Your task to perform on an android device: turn on bluetooth scan Image 0: 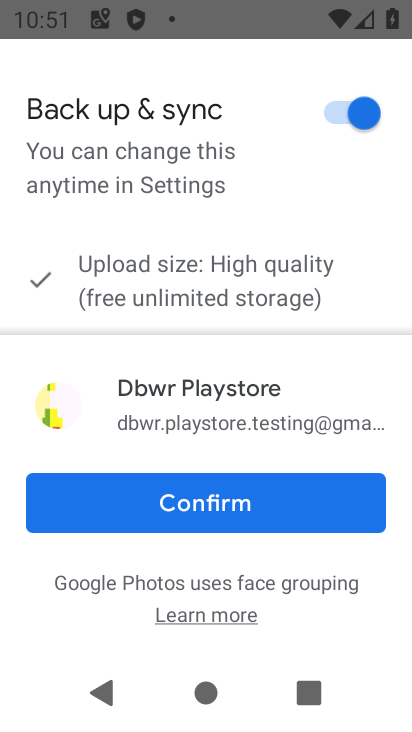
Step 0: press home button
Your task to perform on an android device: turn on bluetooth scan Image 1: 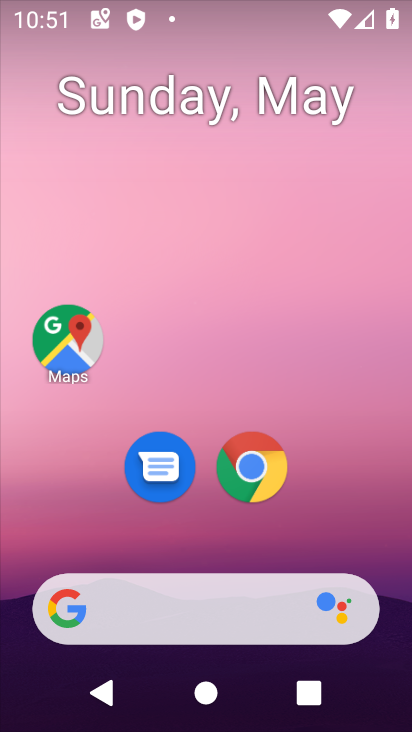
Step 1: drag from (381, 564) to (395, 0)
Your task to perform on an android device: turn on bluetooth scan Image 2: 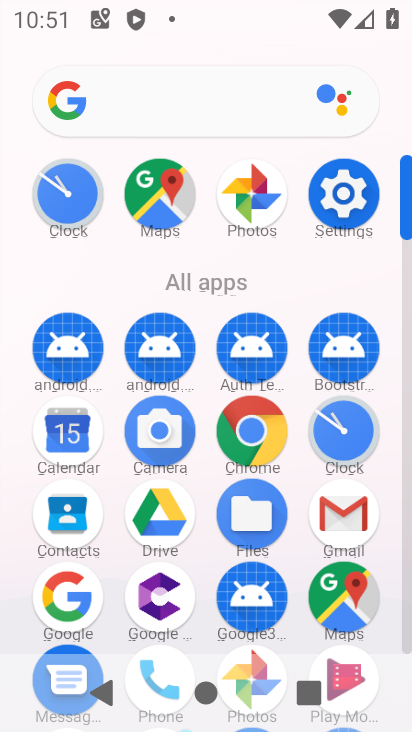
Step 2: click (346, 202)
Your task to perform on an android device: turn on bluetooth scan Image 3: 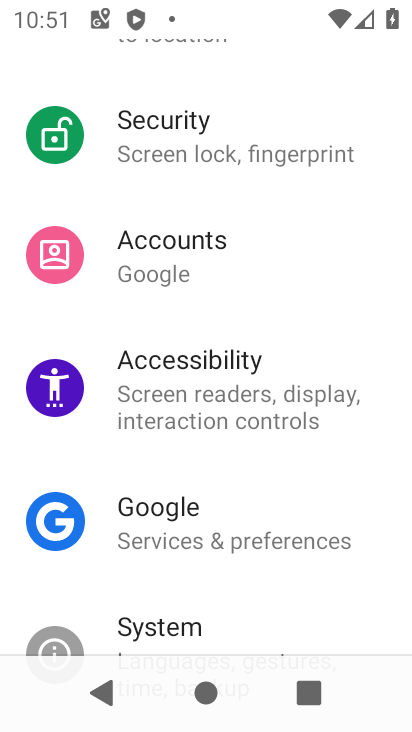
Step 3: drag from (361, 562) to (335, 209)
Your task to perform on an android device: turn on bluetooth scan Image 4: 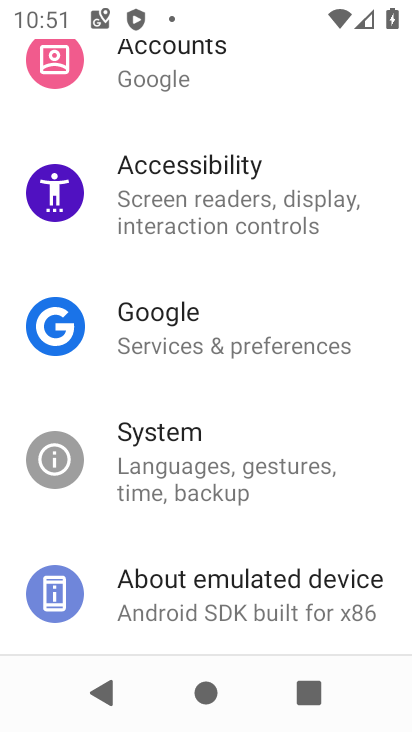
Step 4: drag from (357, 179) to (311, 676)
Your task to perform on an android device: turn on bluetooth scan Image 5: 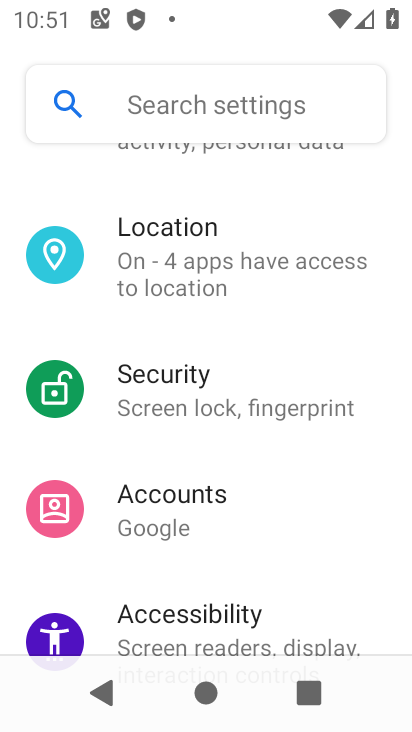
Step 5: click (176, 281)
Your task to perform on an android device: turn on bluetooth scan Image 6: 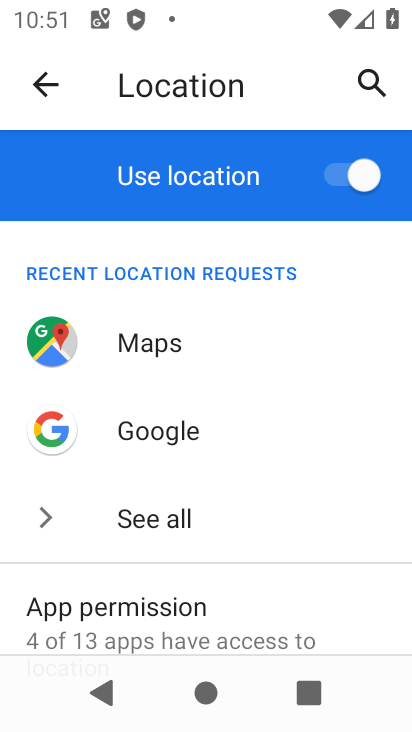
Step 6: drag from (246, 518) to (252, 200)
Your task to perform on an android device: turn on bluetooth scan Image 7: 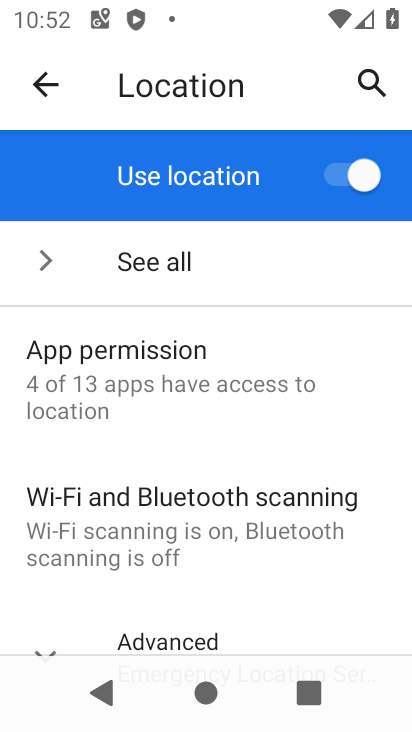
Step 7: click (139, 522)
Your task to perform on an android device: turn on bluetooth scan Image 8: 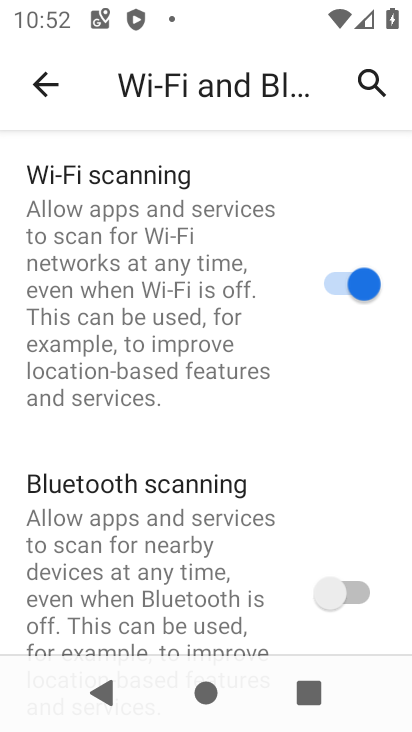
Step 8: drag from (163, 544) to (174, 327)
Your task to perform on an android device: turn on bluetooth scan Image 9: 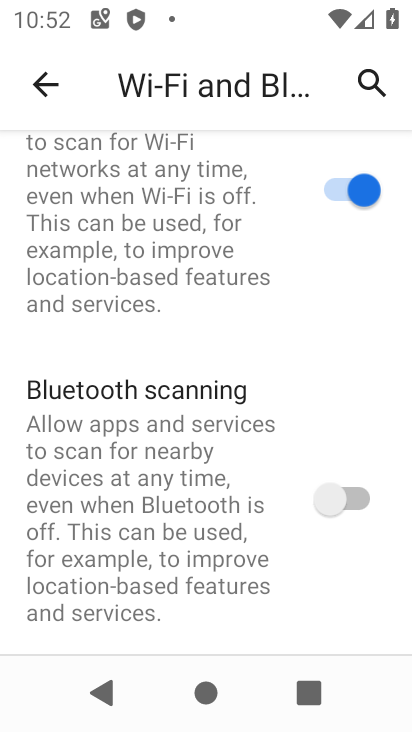
Step 9: click (344, 498)
Your task to perform on an android device: turn on bluetooth scan Image 10: 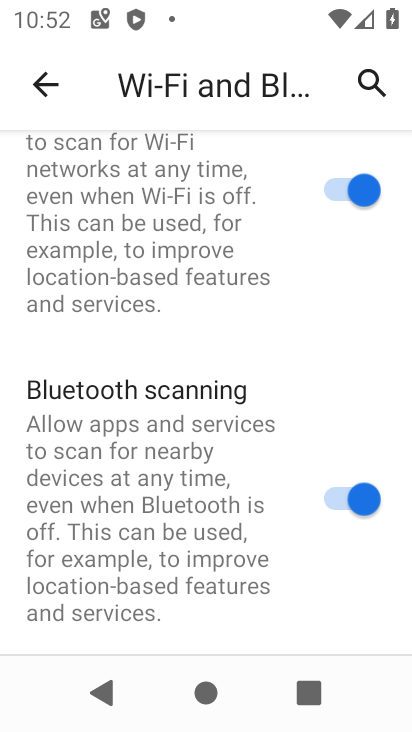
Step 10: task complete